Your task to perform on an android device: Open Maps and search for coffee Image 0: 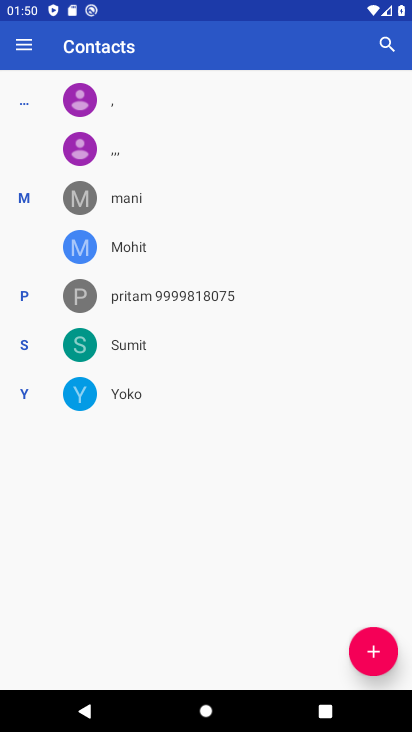
Step 0: press home button
Your task to perform on an android device: Open Maps and search for coffee Image 1: 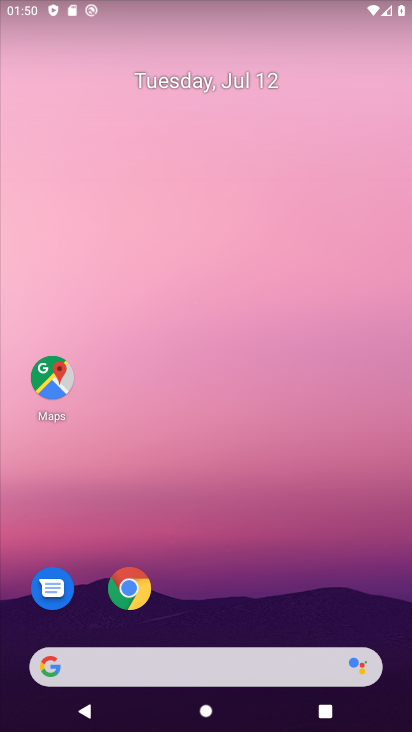
Step 1: click (35, 361)
Your task to perform on an android device: Open Maps and search for coffee Image 2: 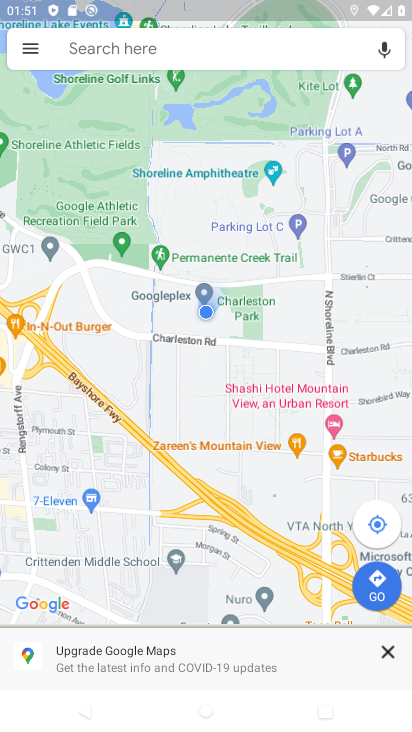
Step 2: click (172, 50)
Your task to perform on an android device: Open Maps and search for coffee Image 3: 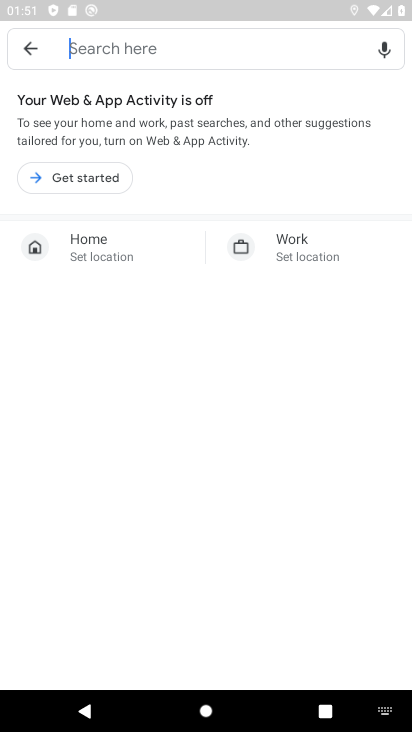
Step 3: type "coffee"
Your task to perform on an android device: Open Maps and search for coffee Image 4: 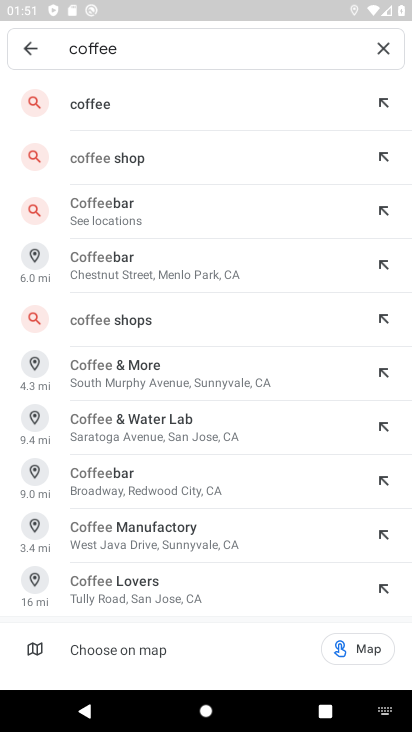
Step 4: click (127, 99)
Your task to perform on an android device: Open Maps and search for coffee Image 5: 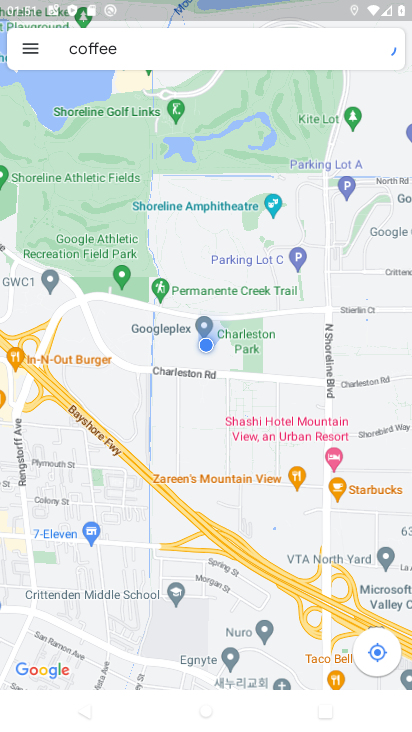
Step 5: task complete